Your task to perform on an android device: move an email to a new category in the gmail app Image 0: 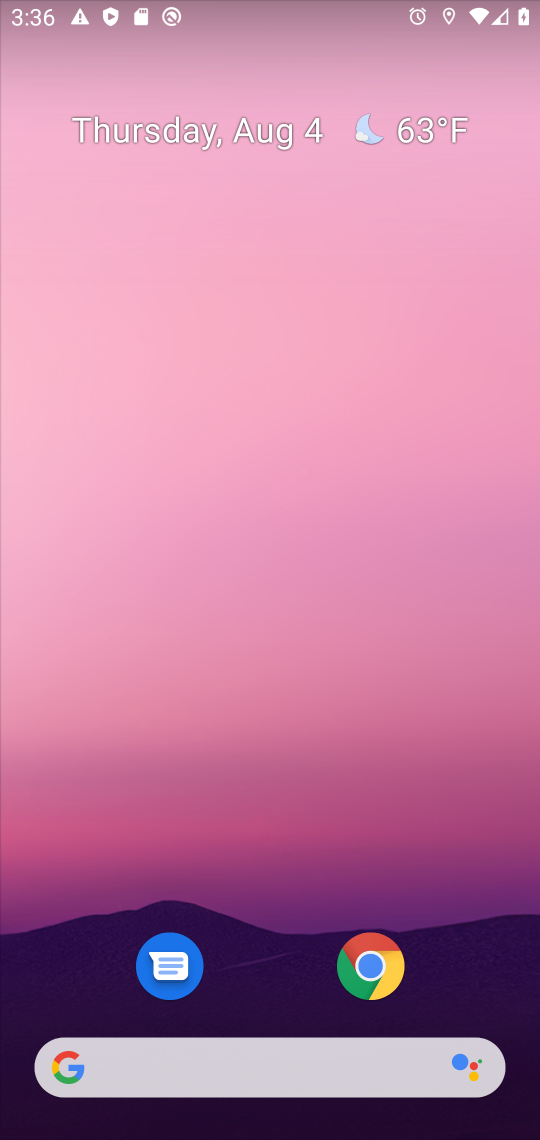
Step 0: press home button
Your task to perform on an android device: move an email to a new category in the gmail app Image 1: 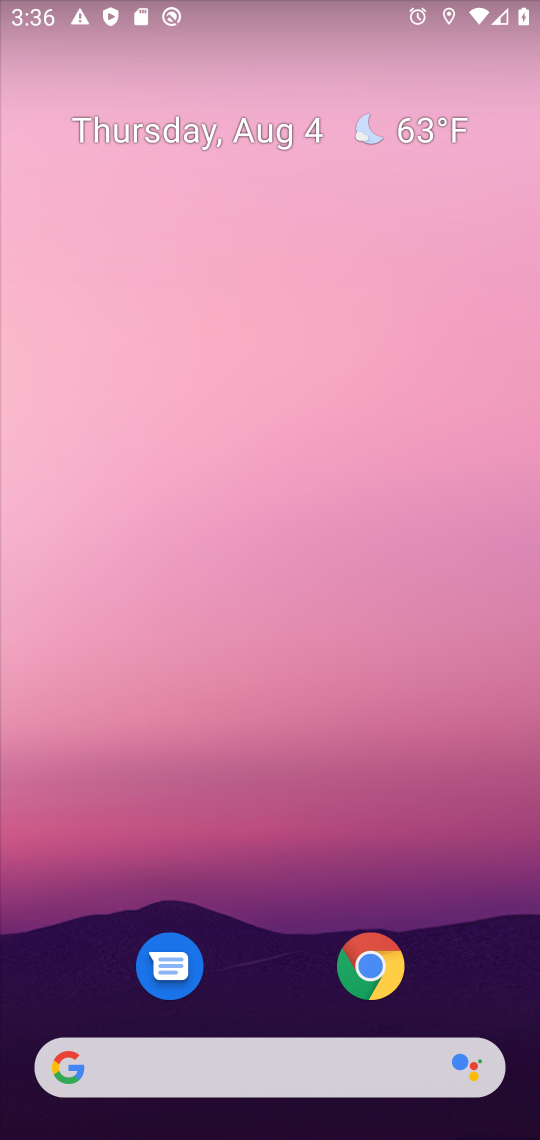
Step 1: drag from (279, 994) to (256, 292)
Your task to perform on an android device: move an email to a new category in the gmail app Image 2: 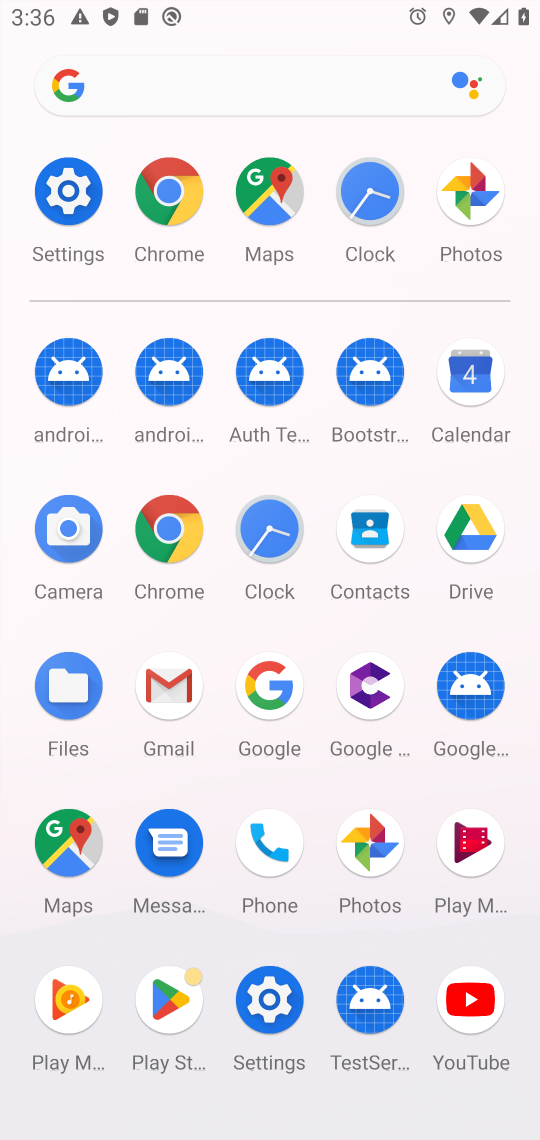
Step 2: click (180, 694)
Your task to perform on an android device: move an email to a new category in the gmail app Image 3: 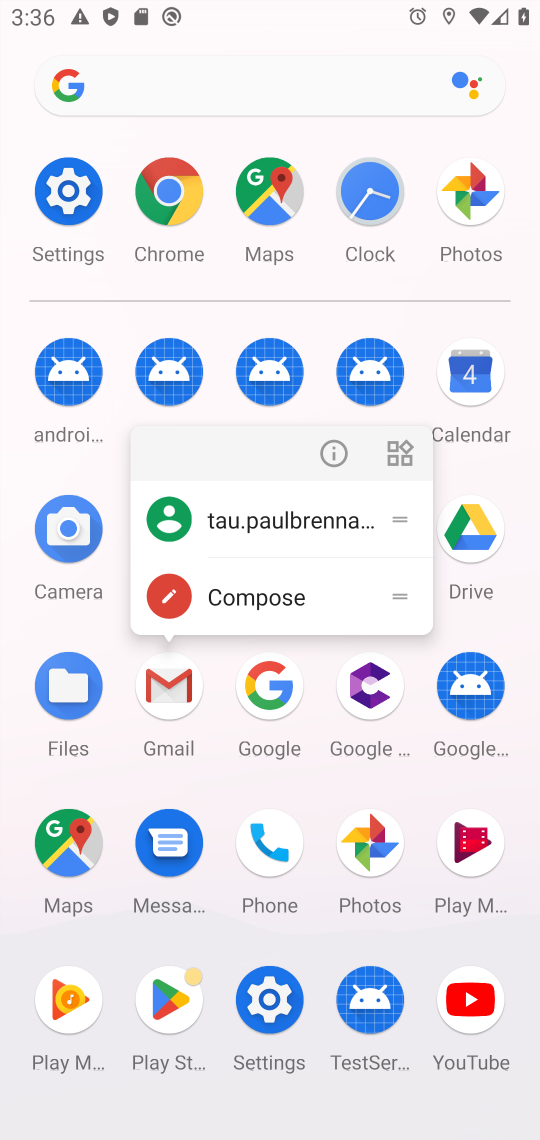
Step 3: click (180, 694)
Your task to perform on an android device: move an email to a new category in the gmail app Image 4: 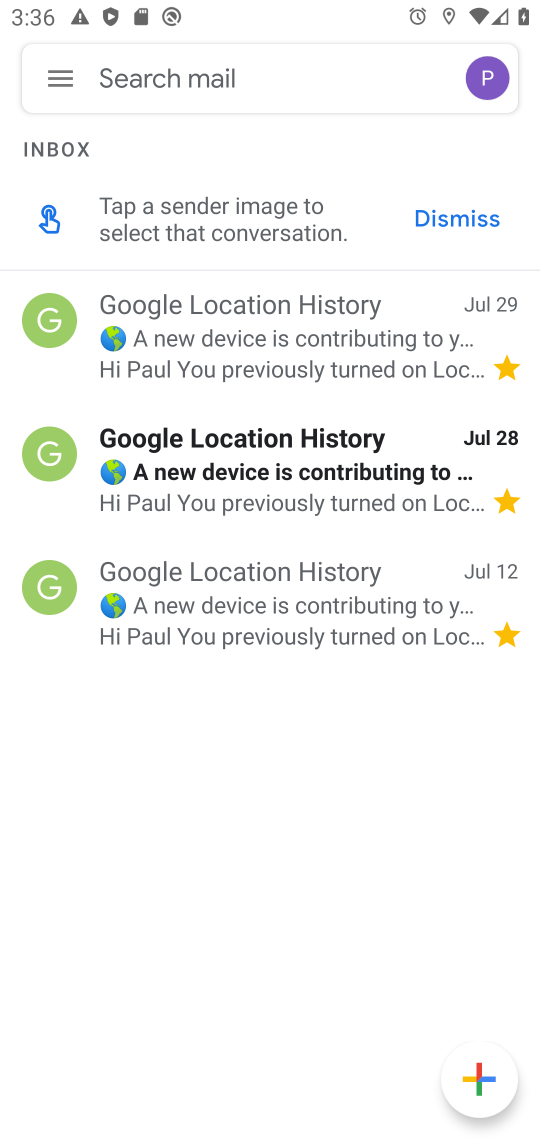
Step 4: click (294, 331)
Your task to perform on an android device: move an email to a new category in the gmail app Image 5: 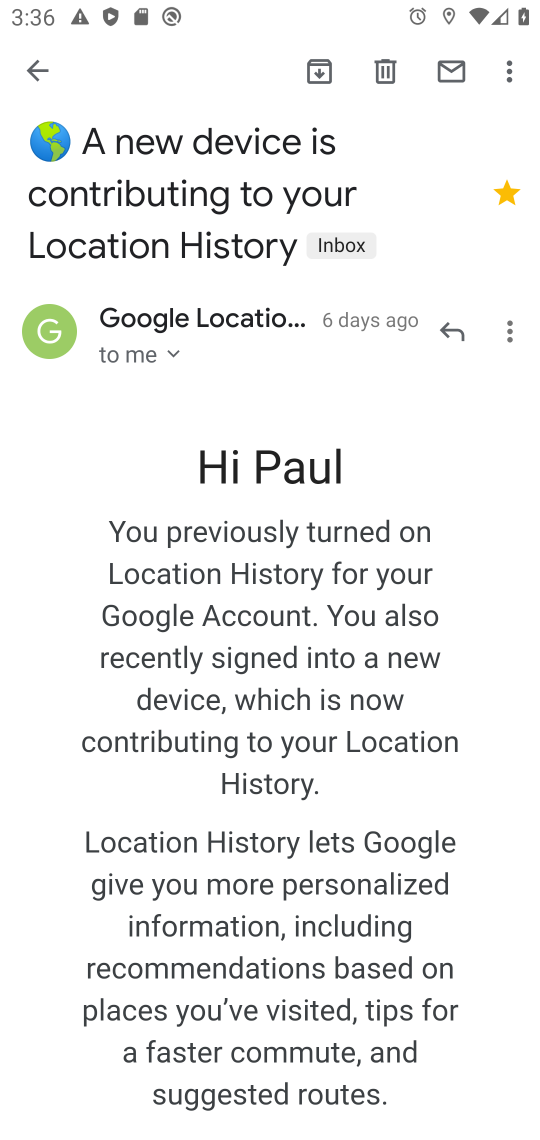
Step 5: click (510, 64)
Your task to perform on an android device: move an email to a new category in the gmail app Image 6: 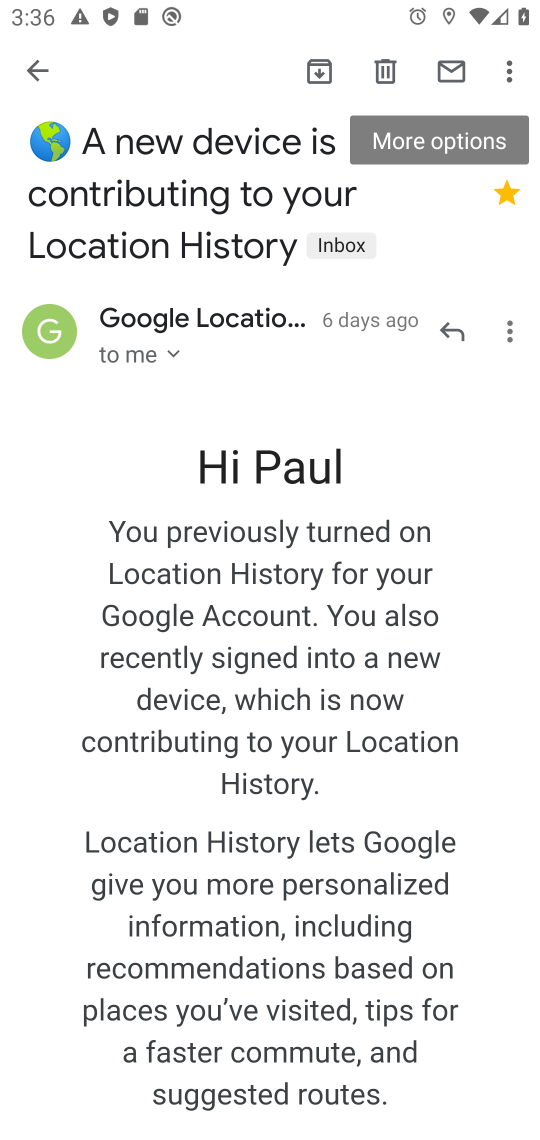
Step 6: click (510, 64)
Your task to perform on an android device: move an email to a new category in the gmail app Image 7: 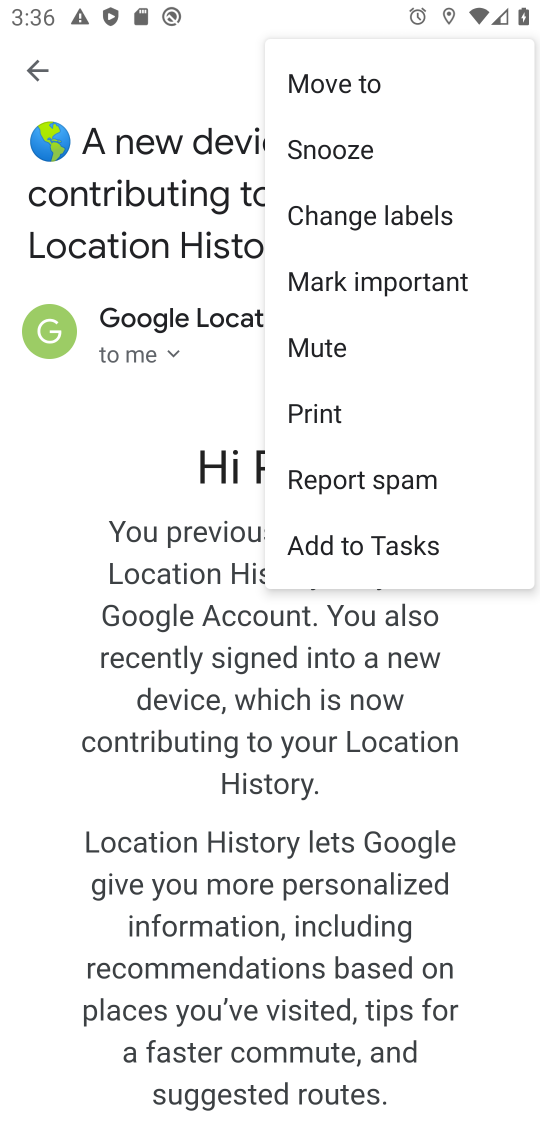
Step 7: click (346, 93)
Your task to perform on an android device: move an email to a new category in the gmail app Image 8: 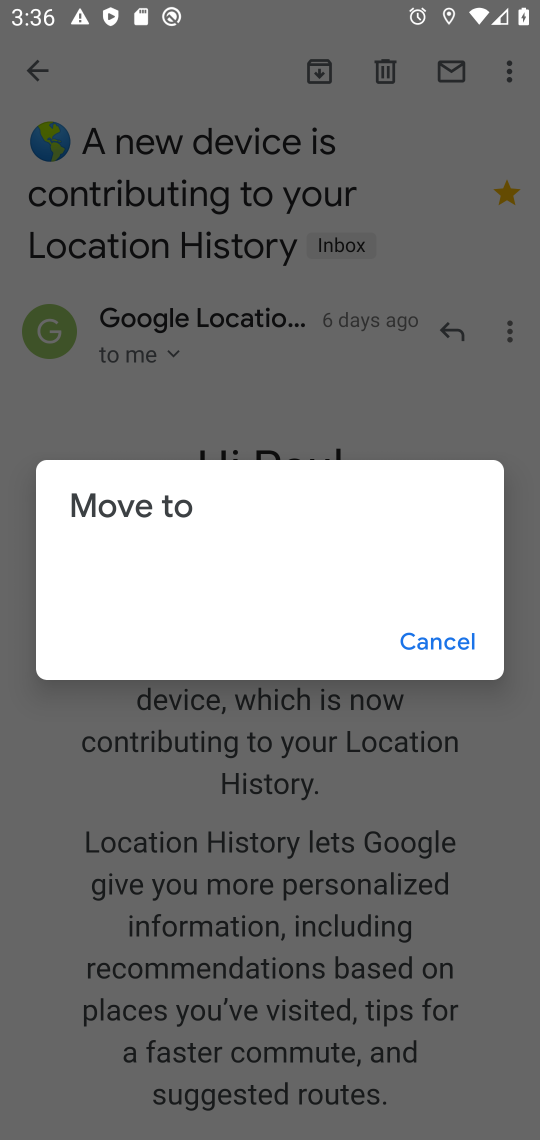
Step 8: click (453, 636)
Your task to perform on an android device: move an email to a new category in the gmail app Image 9: 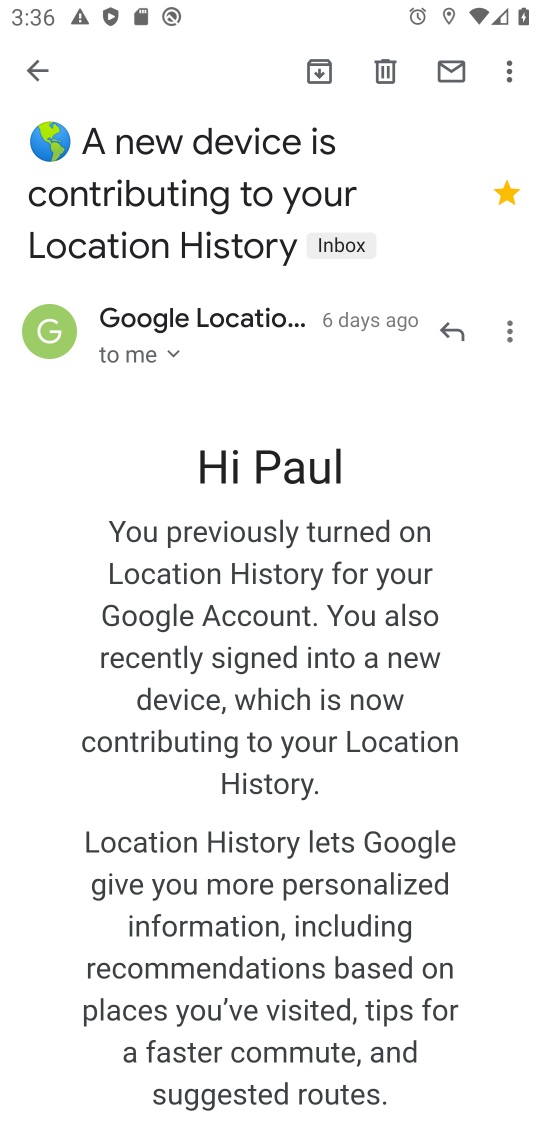
Step 9: task complete